Your task to perform on an android device: Open Chrome and go to the settings page Image 0: 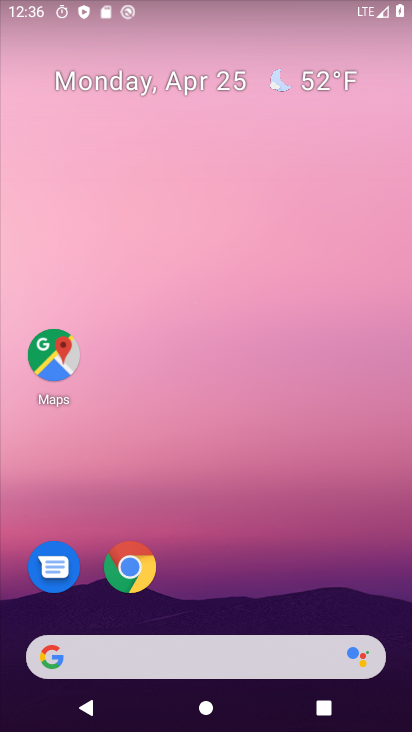
Step 0: click (129, 565)
Your task to perform on an android device: Open Chrome and go to the settings page Image 1: 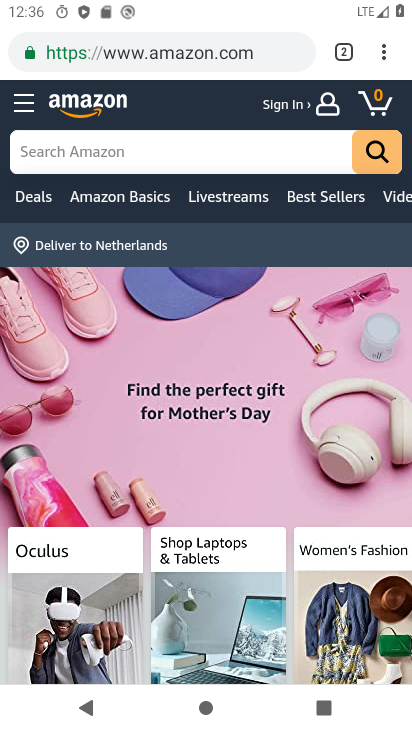
Step 1: click (382, 56)
Your task to perform on an android device: Open Chrome and go to the settings page Image 2: 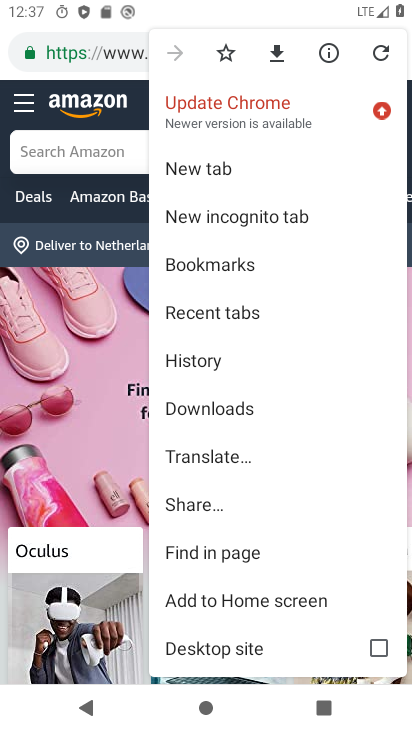
Step 2: drag from (275, 481) to (241, 364)
Your task to perform on an android device: Open Chrome and go to the settings page Image 3: 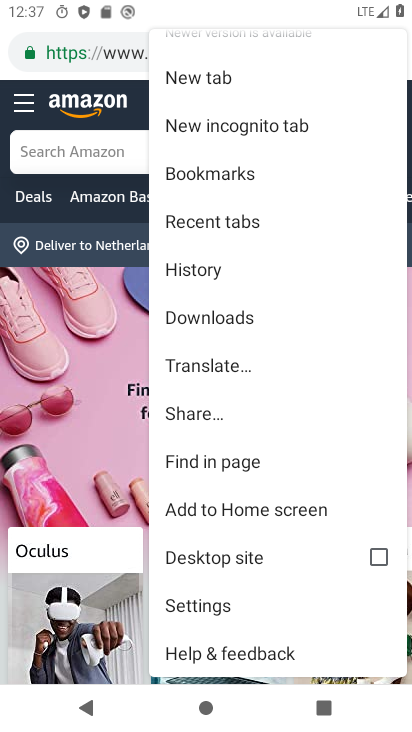
Step 3: click (259, 602)
Your task to perform on an android device: Open Chrome and go to the settings page Image 4: 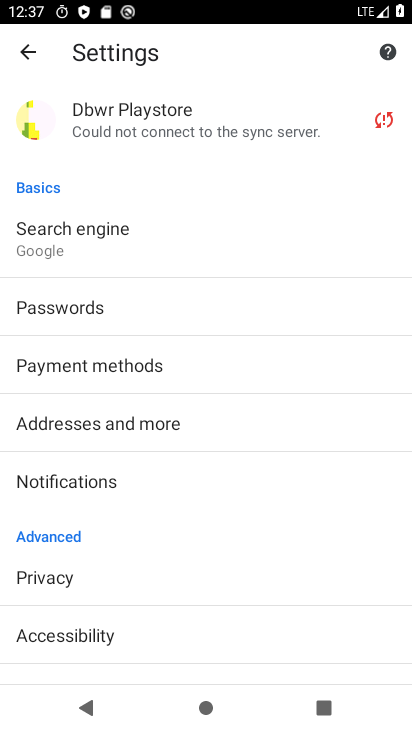
Step 4: task complete